Your task to perform on an android device: open app "DoorDash - Food Delivery" Image 0: 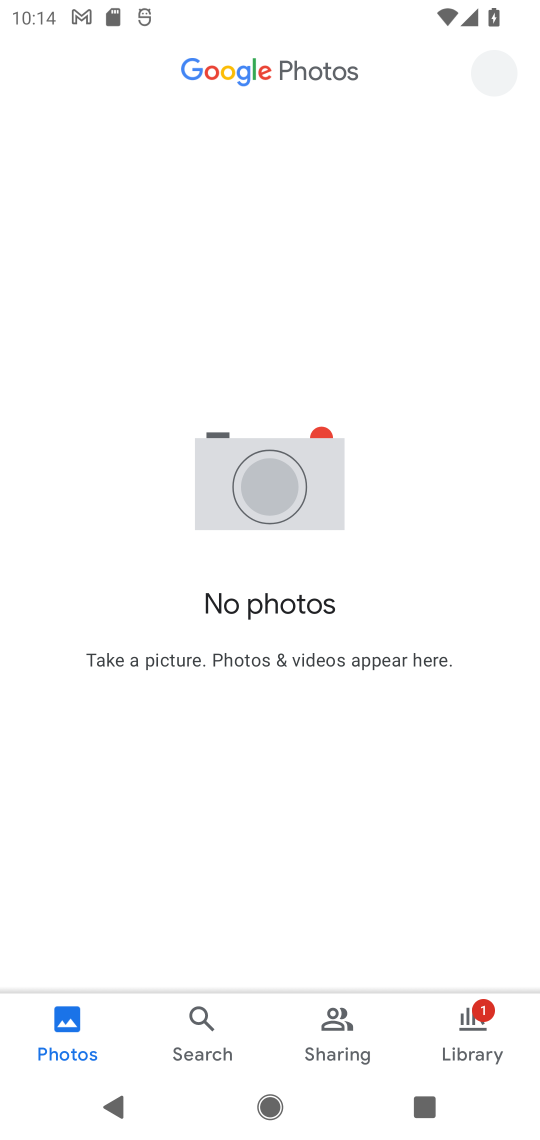
Step 0: press home button
Your task to perform on an android device: open app "DoorDash - Food Delivery" Image 1: 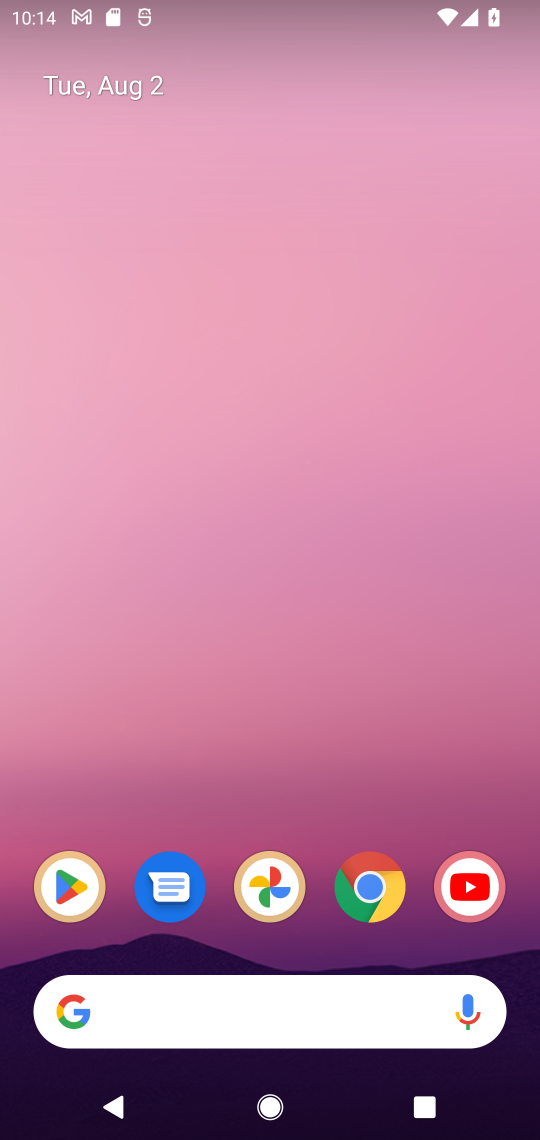
Step 1: drag from (257, 988) to (329, 76)
Your task to perform on an android device: open app "DoorDash - Food Delivery" Image 2: 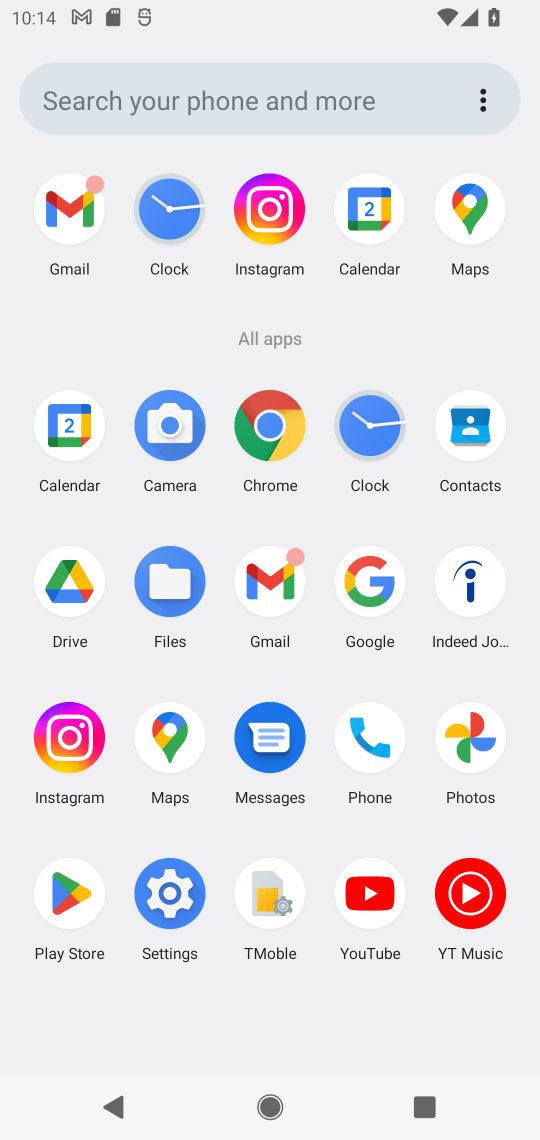
Step 2: click (68, 919)
Your task to perform on an android device: open app "DoorDash - Food Delivery" Image 3: 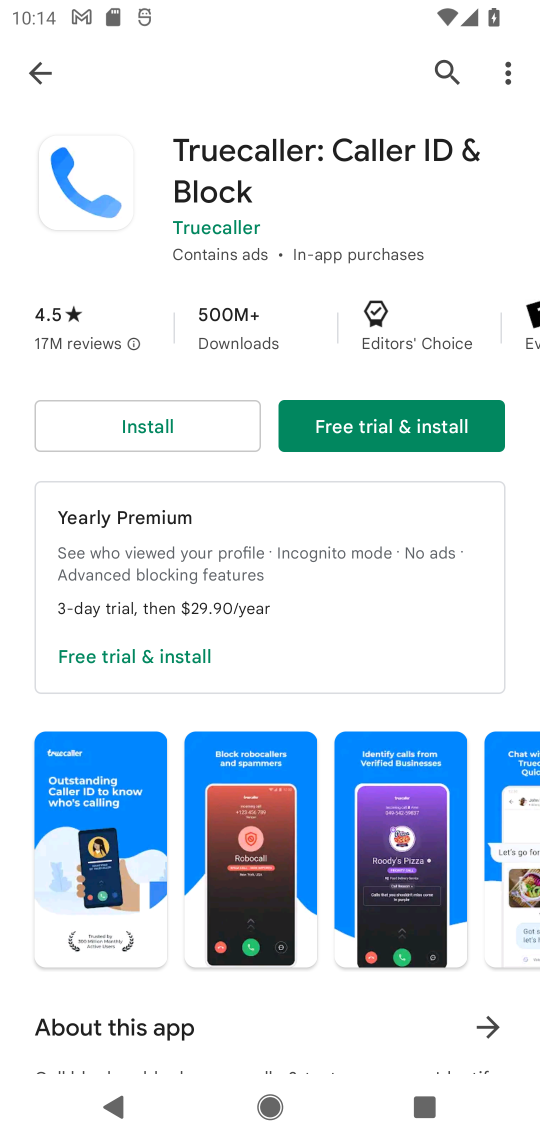
Step 3: click (431, 64)
Your task to perform on an android device: open app "DoorDash - Food Delivery" Image 4: 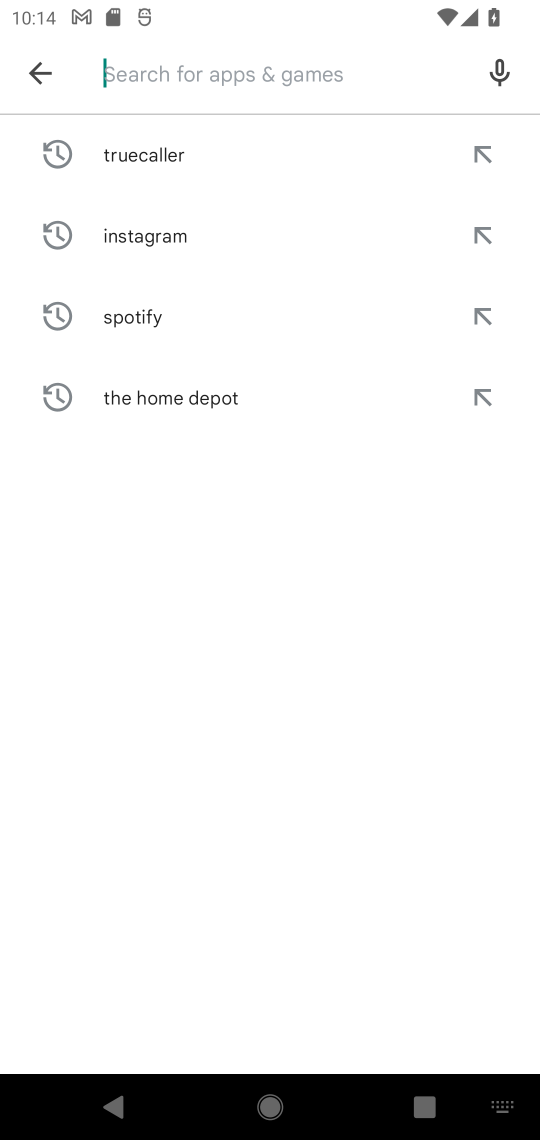
Step 4: type "DoorDash - Food Delivery"
Your task to perform on an android device: open app "DoorDash - Food Delivery" Image 5: 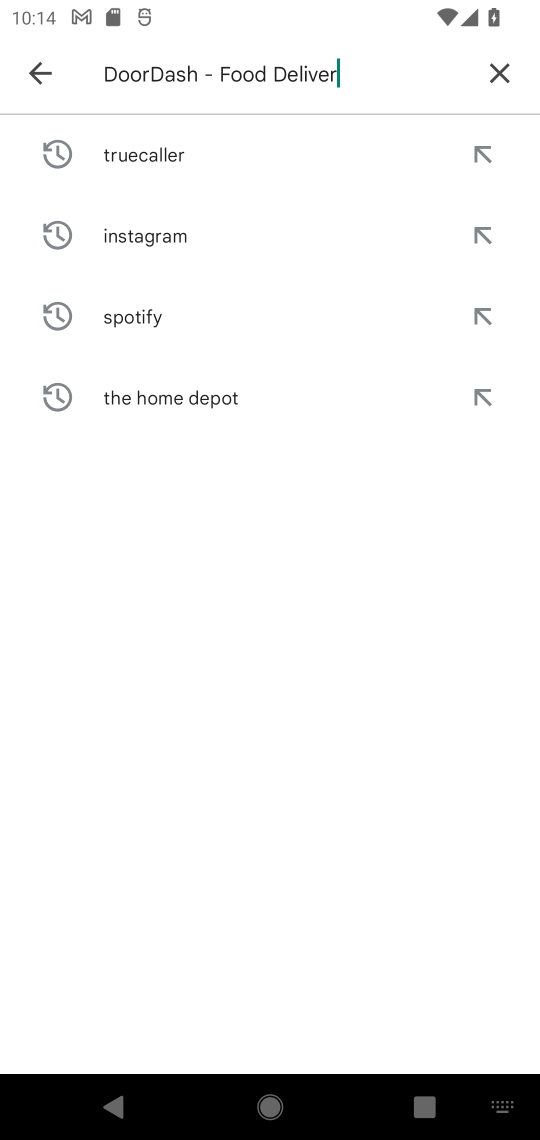
Step 5: type ""
Your task to perform on an android device: open app "DoorDash - Food Delivery" Image 6: 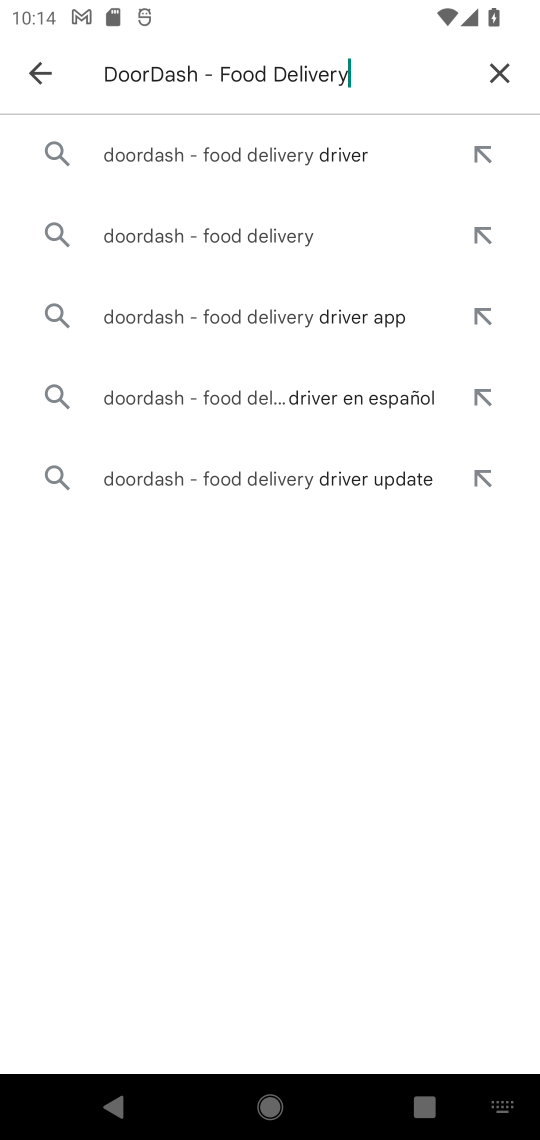
Step 6: click (150, 145)
Your task to perform on an android device: open app "DoorDash - Food Delivery" Image 7: 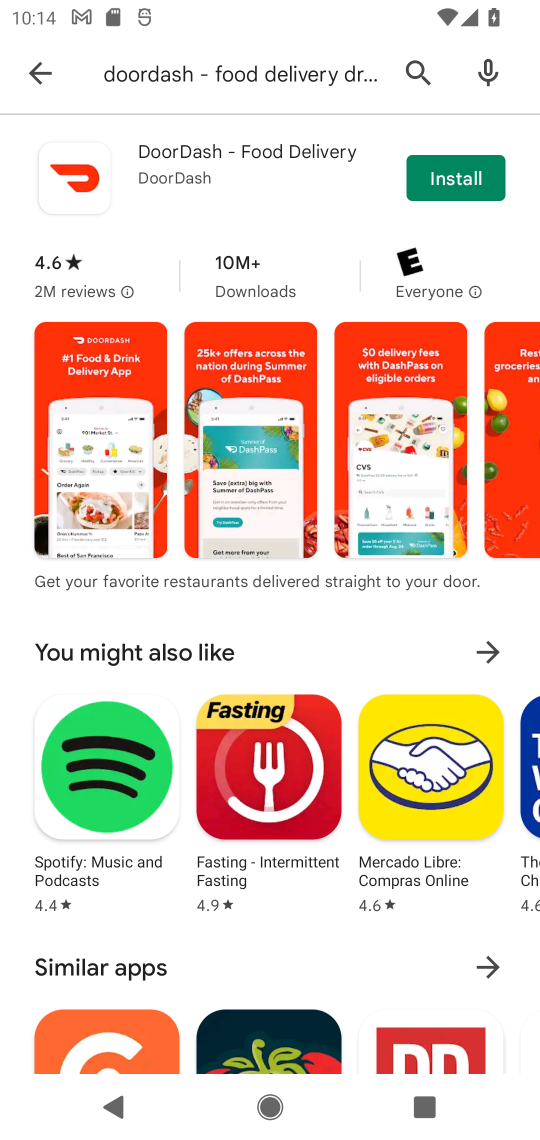
Step 7: task complete